Your task to perform on an android device: open sync settings in chrome Image 0: 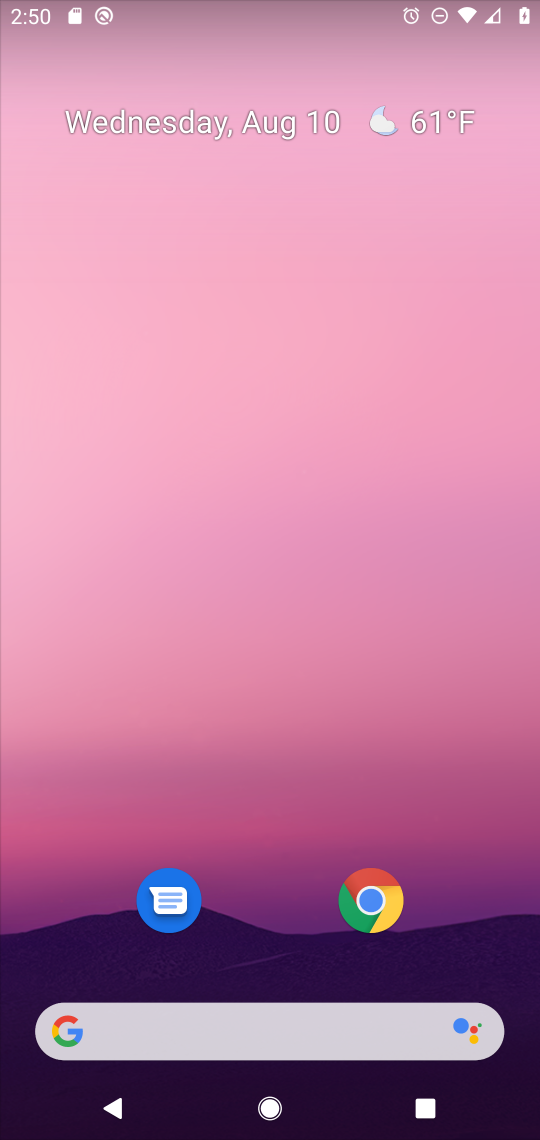
Step 0: click (374, 902)
Your task to perform on an android device: open sync settings in chrome Image 1: 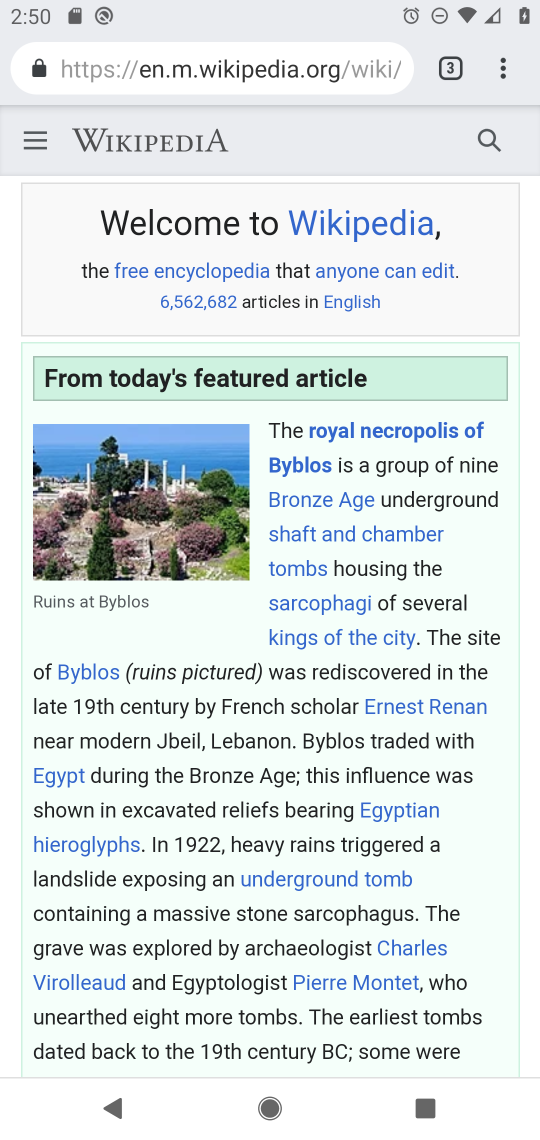
Step 1: click (504, 57)
Your task to perform on an android device: open sync settings in chrome Image 2: 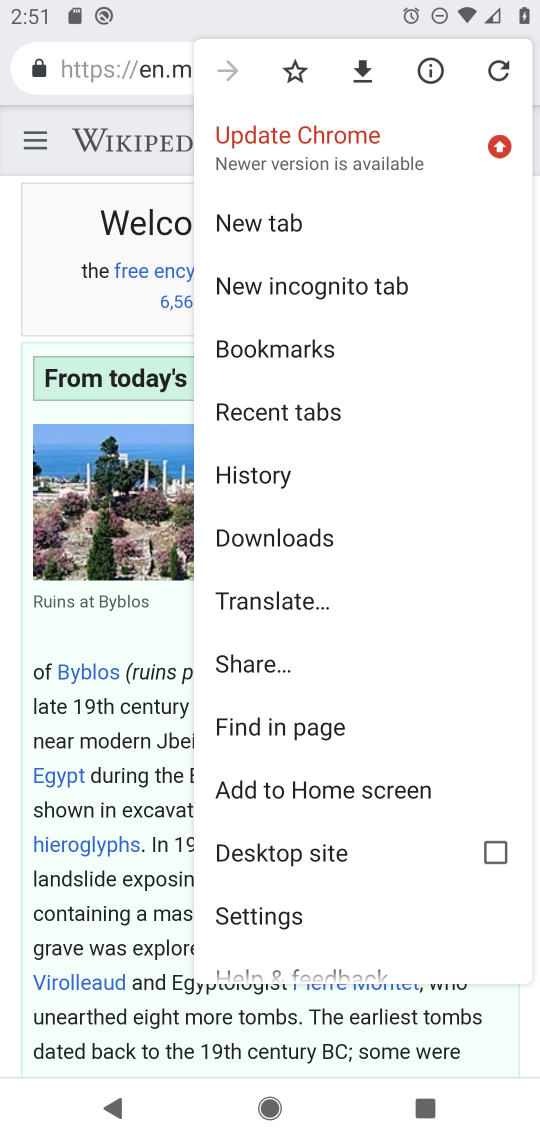
Step 2: click (276, 914)
Your task to perform on an android device: open sync settings in chrome Image 3: 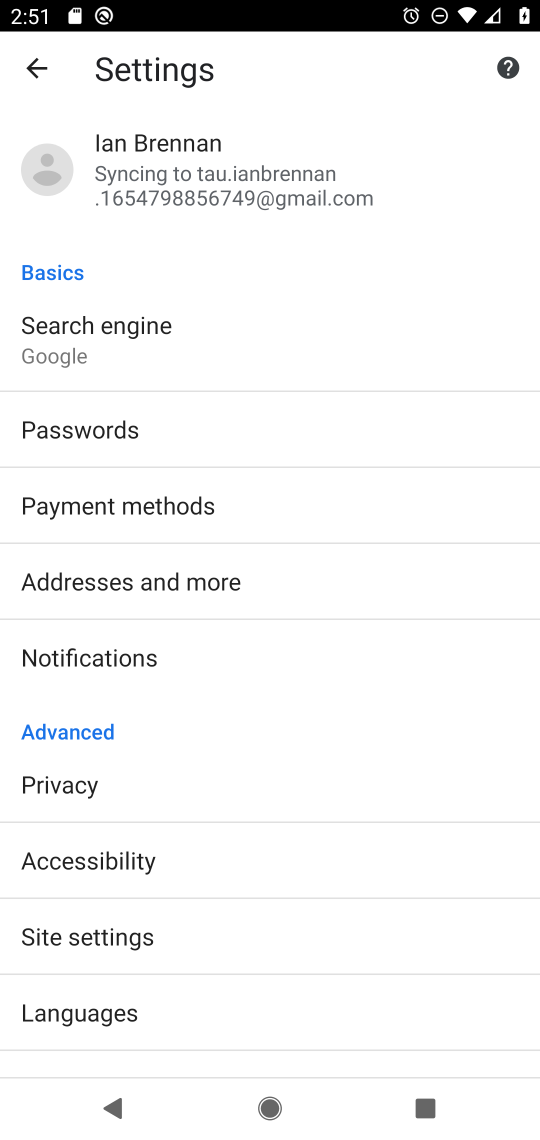
Step 3: click (247, 174)
Your task to perform on an android device: open sync settings in chrome Image 4: 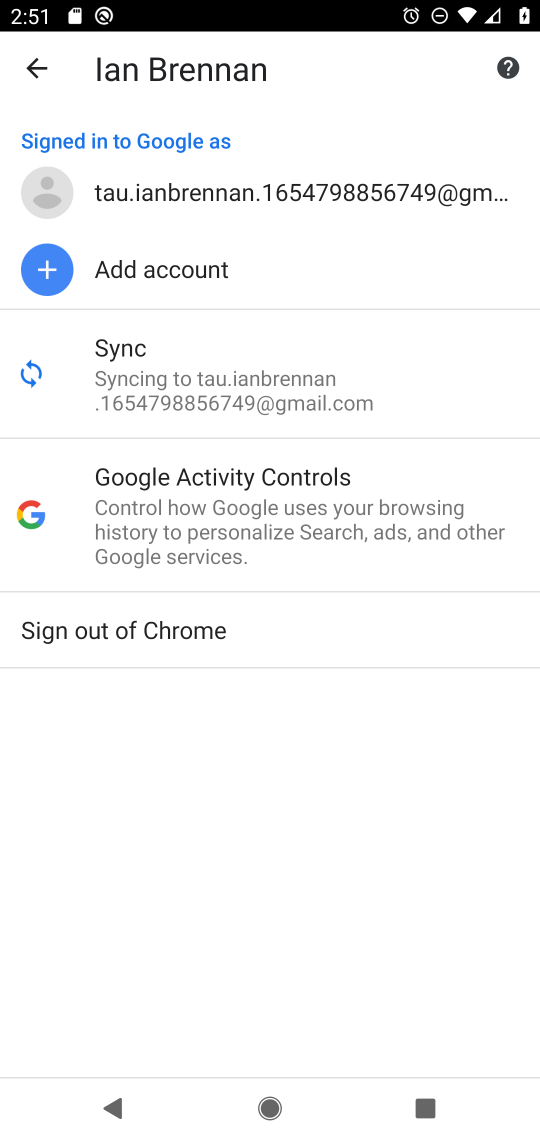
Step 4: click (233, 377)
Your task to perform on an android device: open sync settings in chrome Image 5: 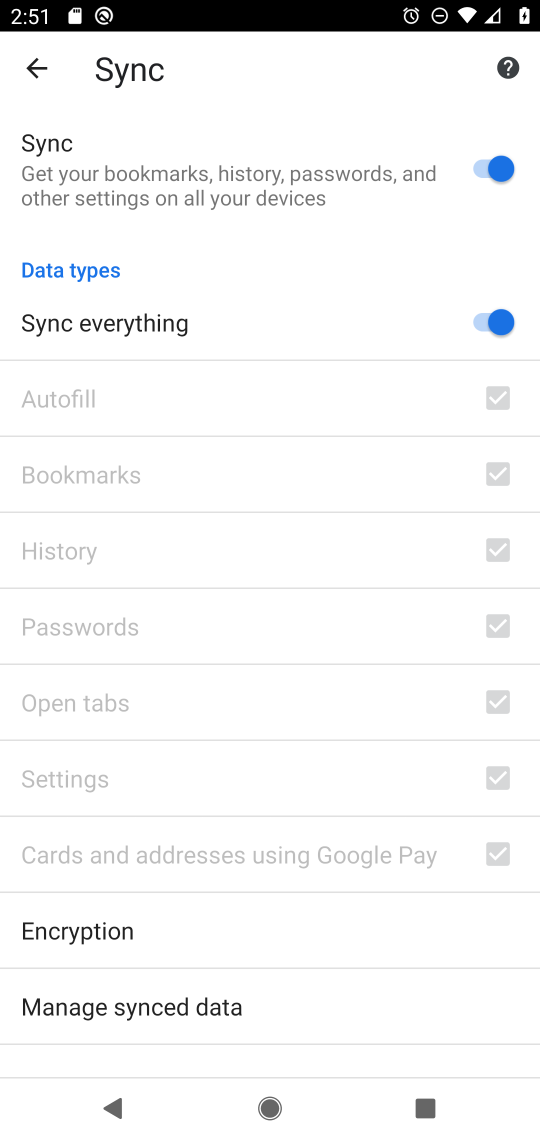
Step 5: task complete